Your task to perform on an android device: create a new album in the google photos Image 0: 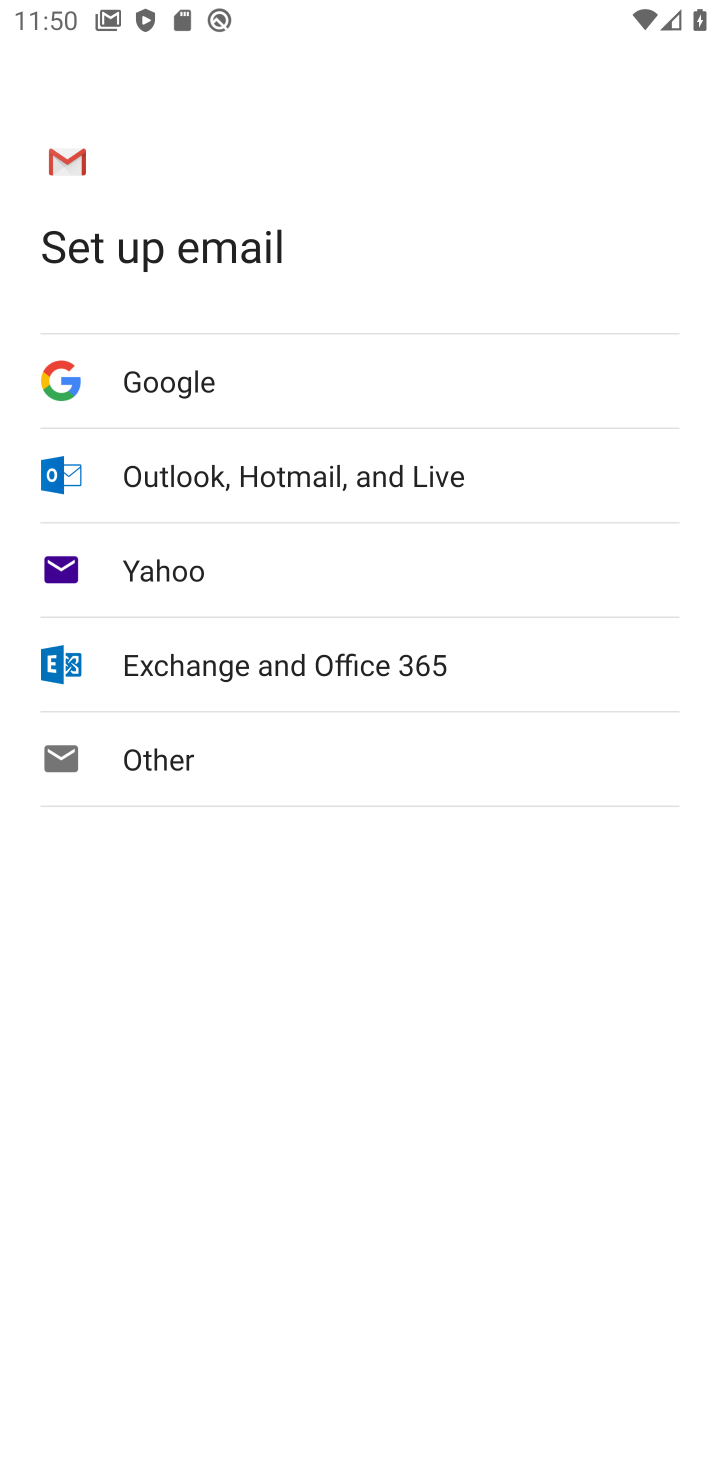
Step 0: press home button
Your task to perform on an android device: create a new album in the google photos Image 1: 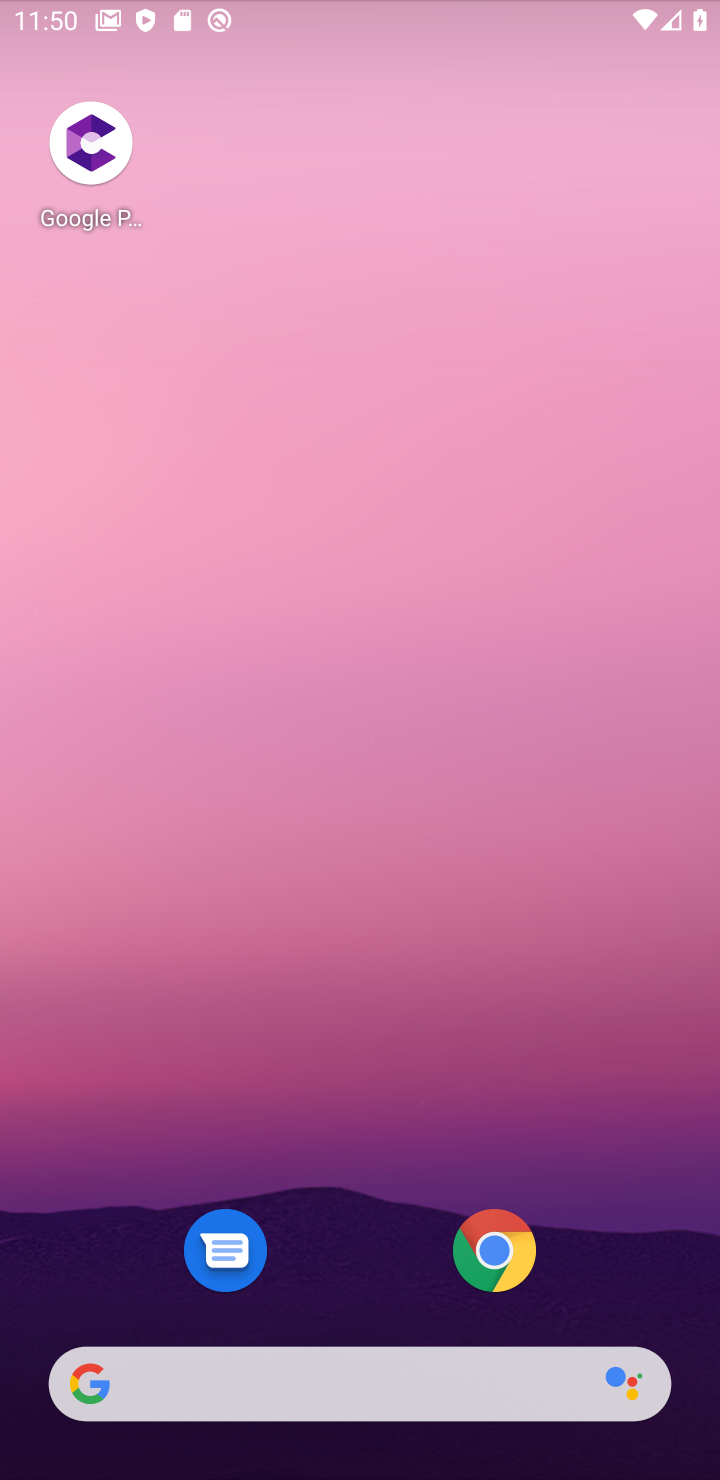
Step 1: task complete